Your task to perform on an android device: remove spam from my inbox in the gmail app Image 0: 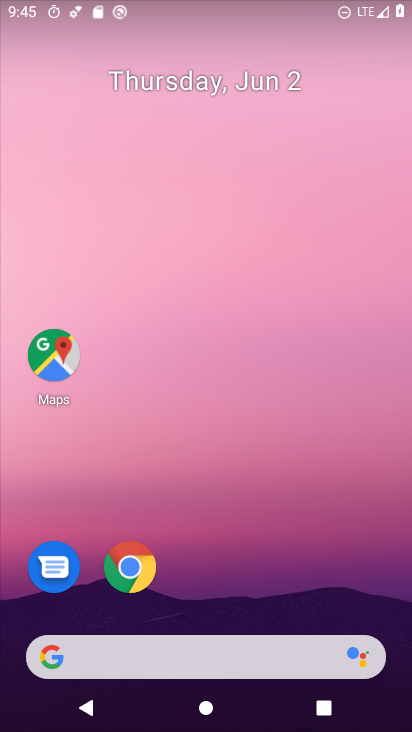
Step 0: drag from (321, 591) to (327, 155)
Your task to perform on an android device: remove spam from my inbox in the gmail app Image 1: 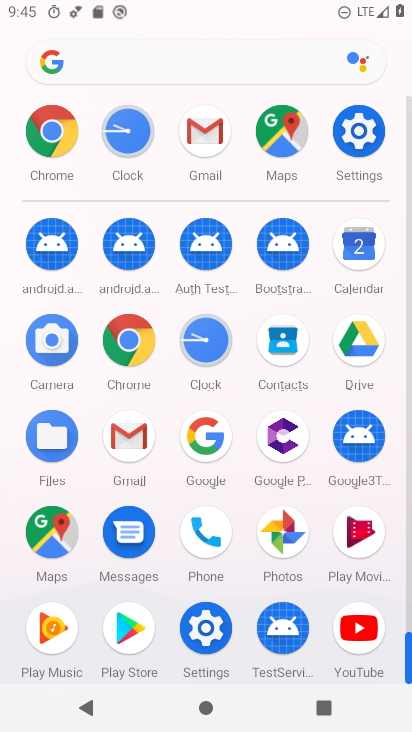
Step 1: click (126, 449)
Your task to perform on an android device: remove spam from my inbox in the gmail app Image 2: 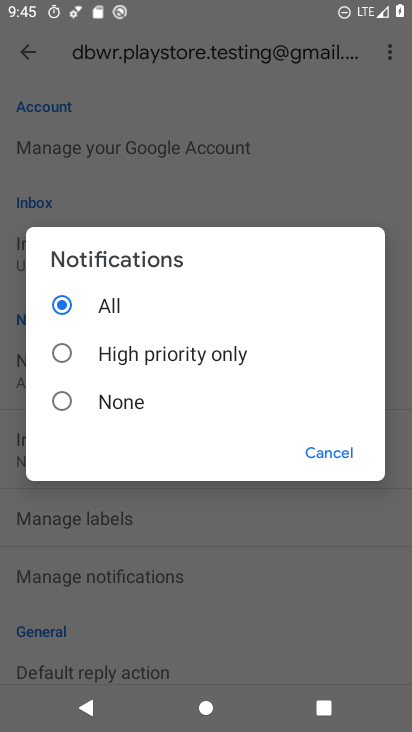
Step 2: click (334, 454)
Your task to perform on an android device: remove spam from my inbox in the gmail app Image 3: 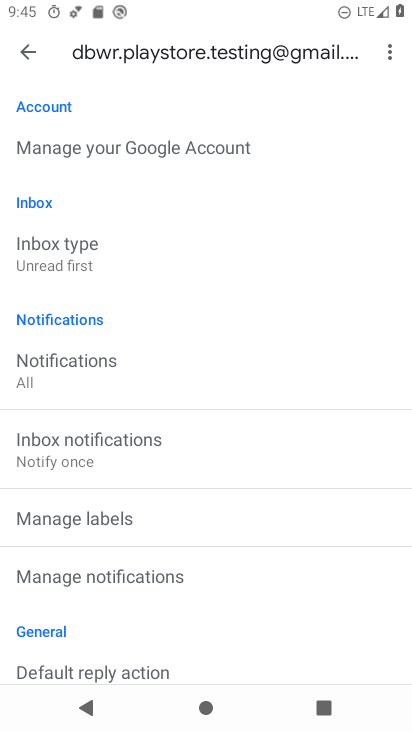
Step 3: click (34, 48)
Your task to perform on an android device: remove spam from my inbox in the gmail app Image 4: 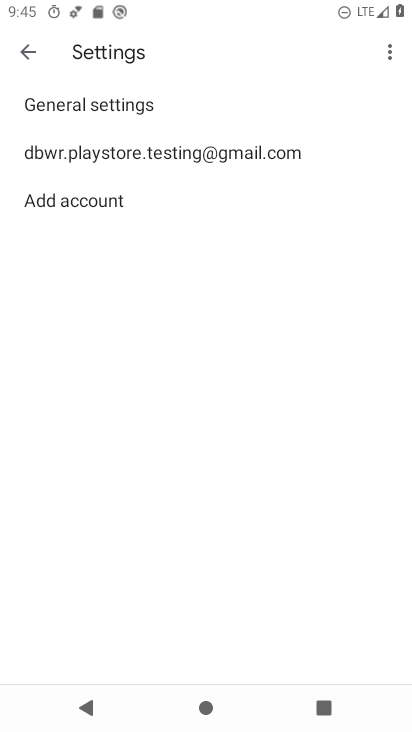
Step 4: click (39, 54)
Your task to perform on an android device: remove spam from my inbox in the gmail app Image 5: 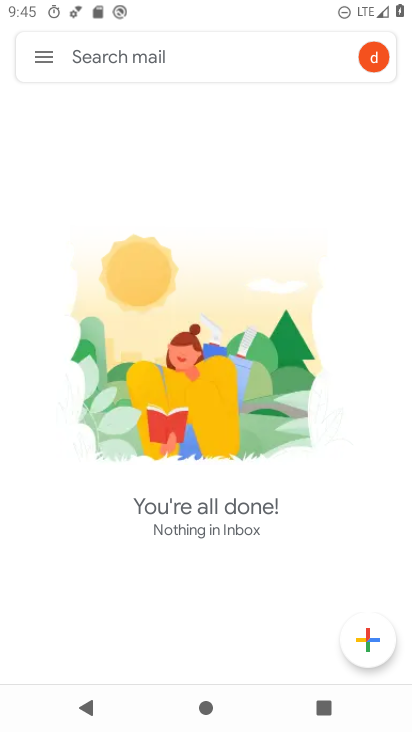
Step 5: click (42, 65)
Your task to perform on an android device: remove spam from my inbox in the gmail app Image 6: 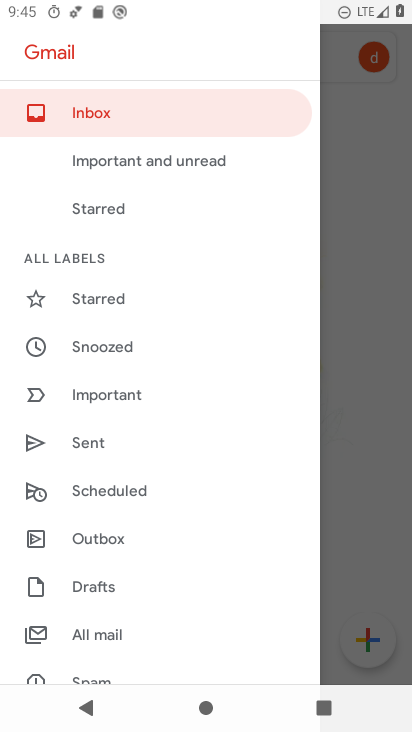
Step 6: drag from (177, 625) to (185, 236)
Your task to perform on an android device: remove spam from my inbox in the gmail app Image 7: 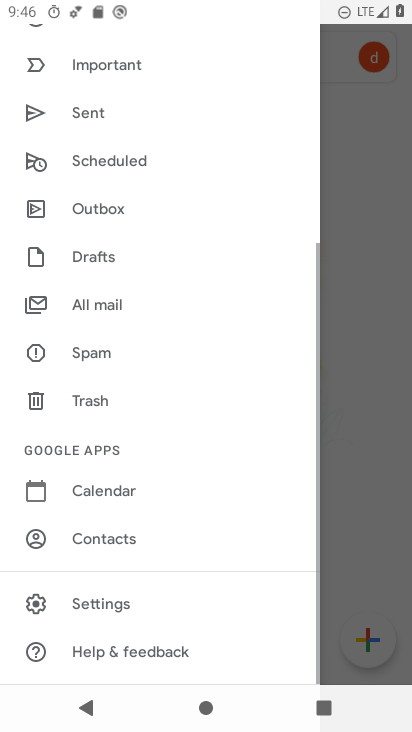
Step 7: click (125, 613)
Your task to perform on an android device: remove spam from my inbox in the gmail app Image 8: 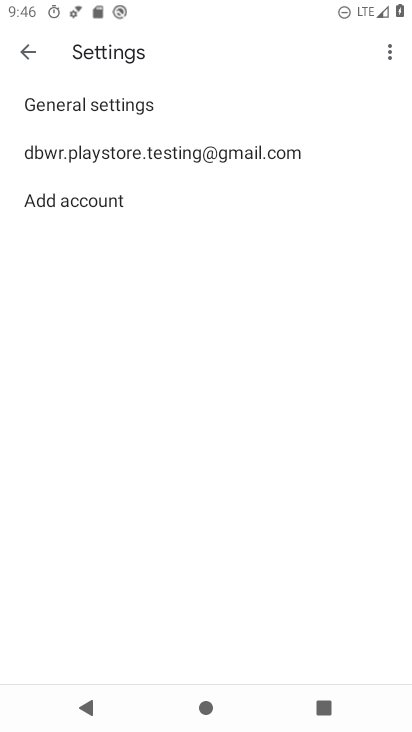
Step 8: click (25, 53)
Your task to perform on an android device: remove spam from my inbox in the gmail app Image 9: 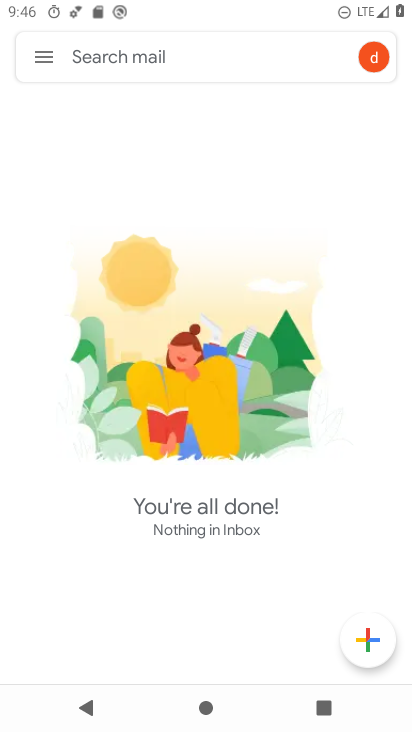
Step 9: click (25, 54)
Your task to perform on an android device: remove spam from my inbox in the gmail app Image 10: 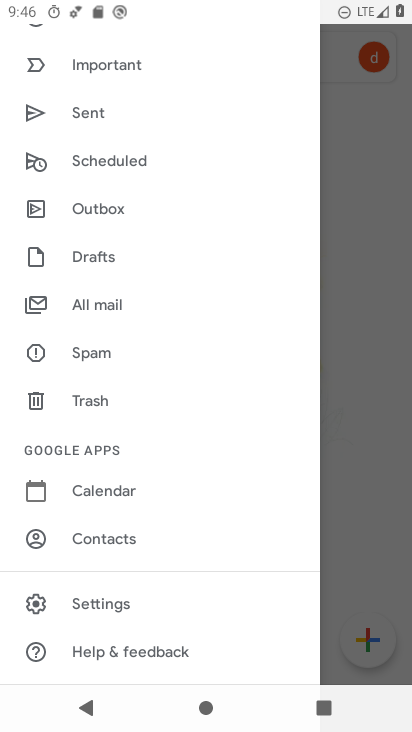
Step 10: click (109, 354)
Your task to perform on an android device: remove spam from my inbox in the gmail app Image 11: 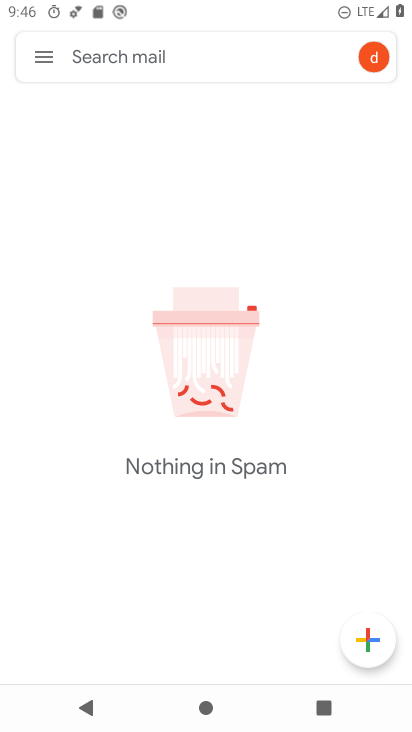
Step 11: task complete